Your task to perform on an android device: Open Youtube and go to "Your channel" Image 0: 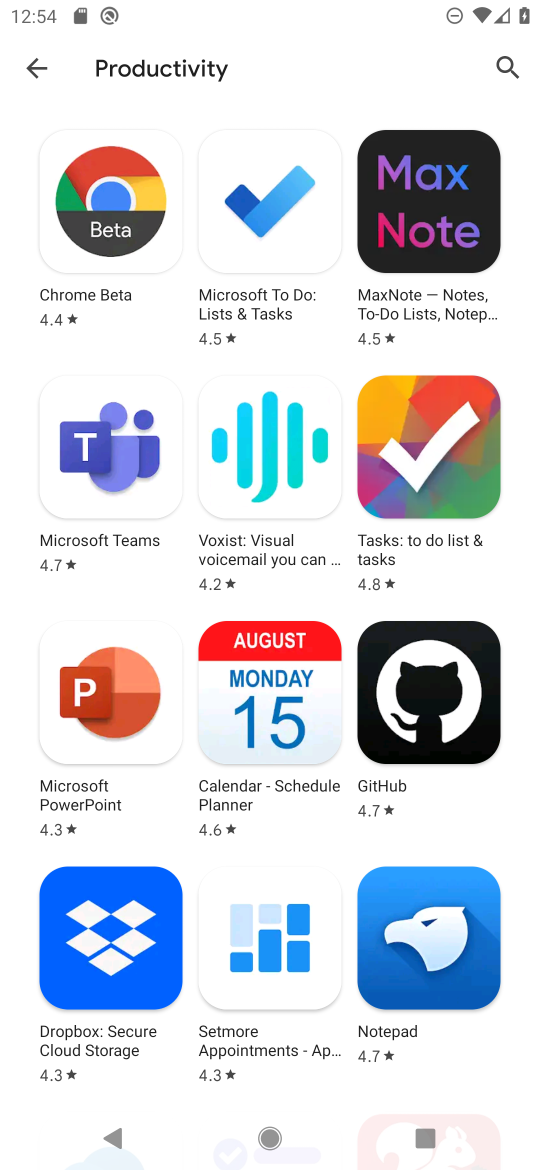
Step 0: press home button
Your task to perform on an android device: Open Youtube and go to "Your channel" Image 1: 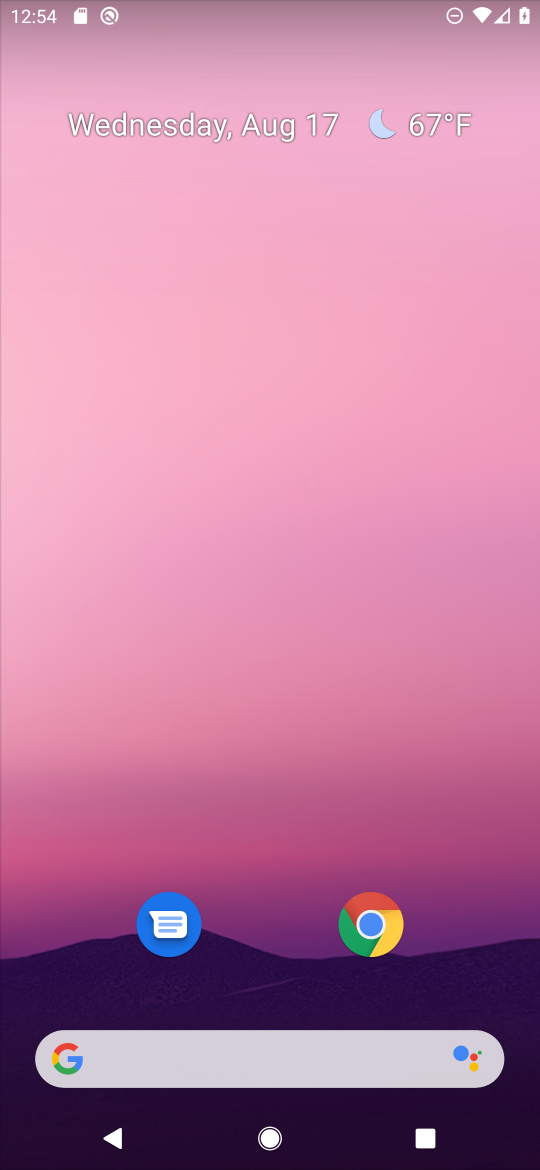
Step 1: drag from (261, 1001) to (265, 116)
Your task to perform on an android device: Open Youtube and go to "Your channel" Image 2: 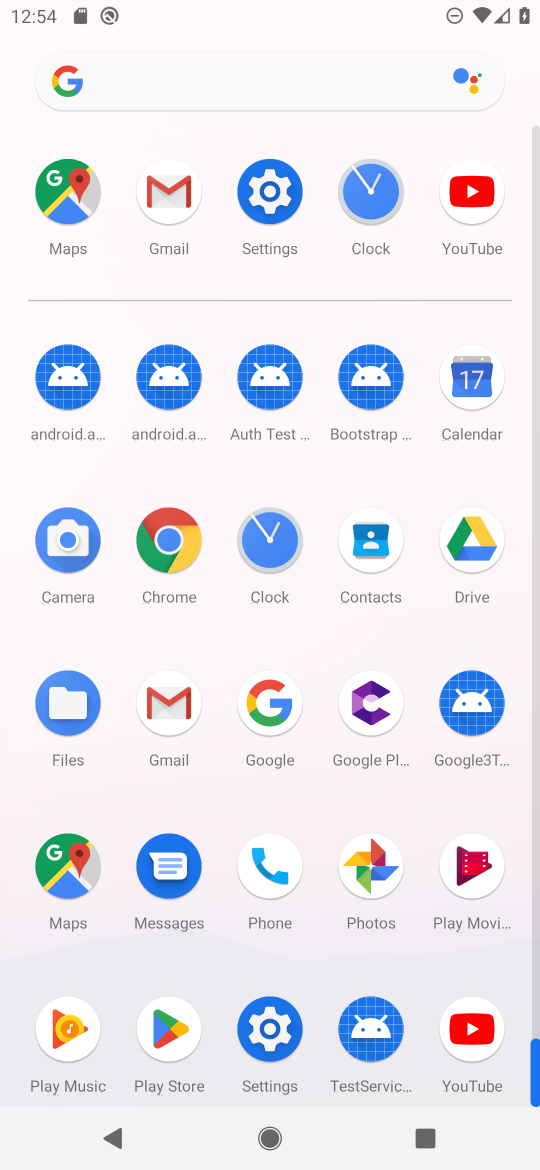
Step 2: click (467, 203)
Your task to perform on an android device: Open Youtube and go to "Your channel" Image 3: 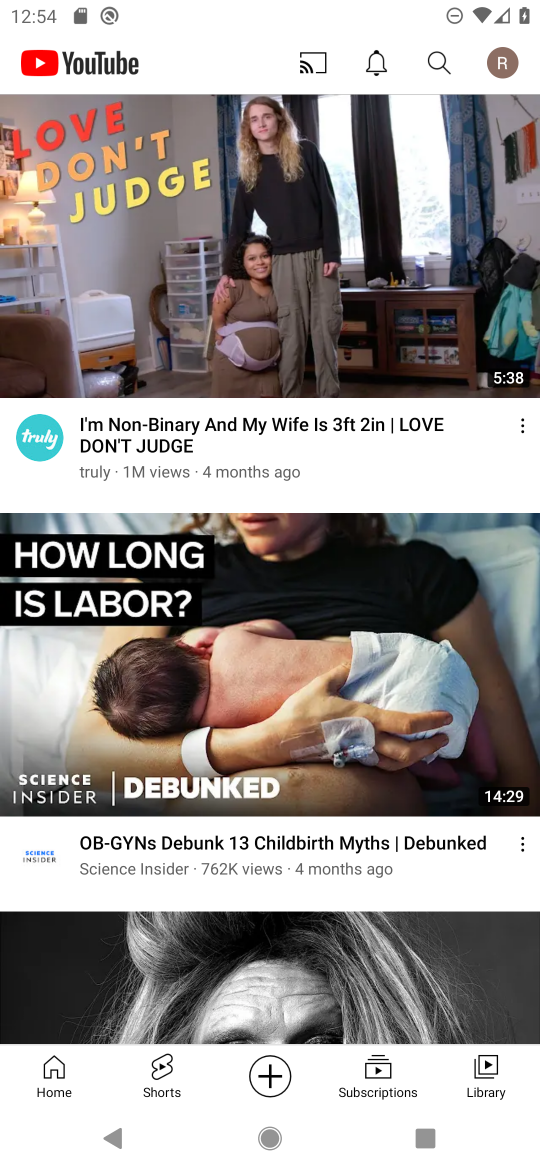
Step 3: click (437, 56)
Your task to perform on an android device: Open Youtube and go to "Your channel" Image 4: 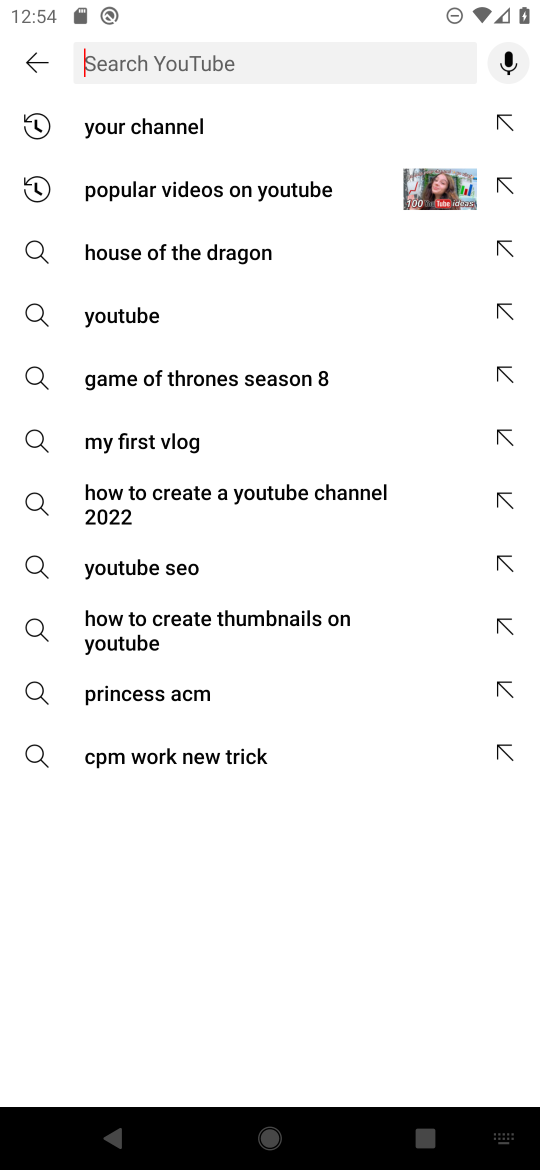
Step 4: click (211, 125)
Your task to perform on an android device: Open Youtube and go to "Your channel" Image 5: 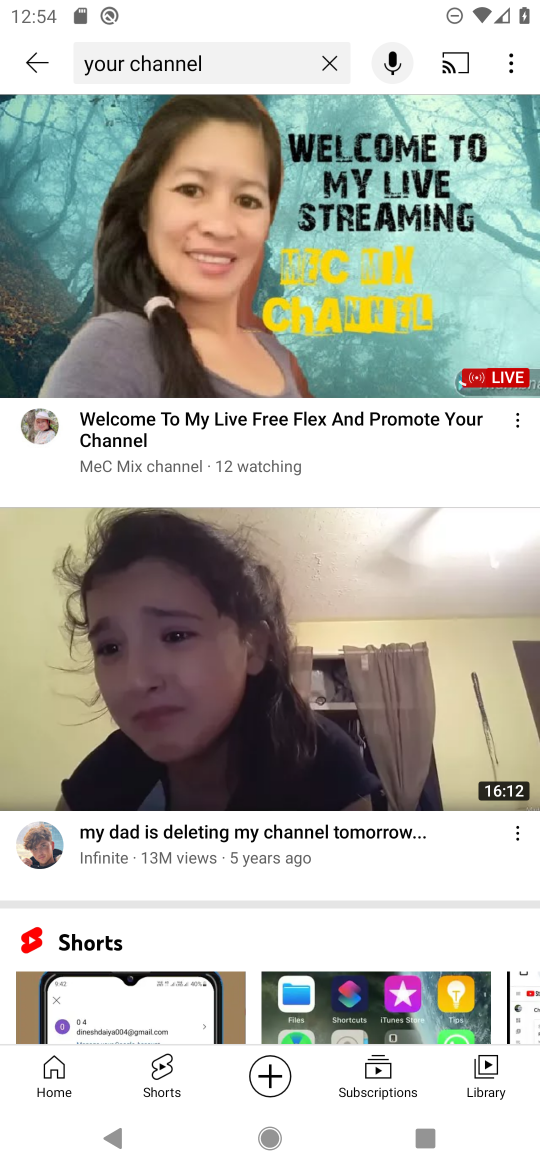
Step 5: task complete